Your task to perform on an android device: turn on data saver in the chrome app Image 0: 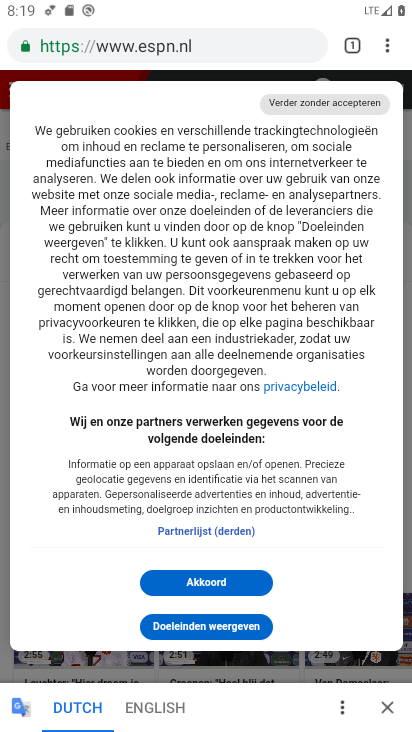
Step 0: press home button
Your task to perform on an android device: turn on data saver in the chrome app Image 1: 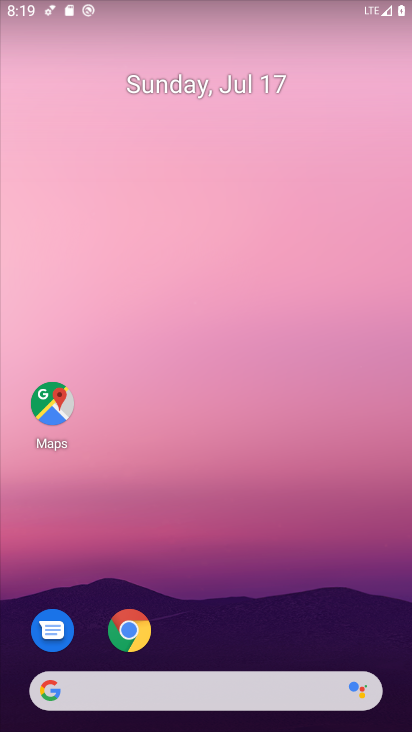
Step 1: drag from (201, 571) to (238, 49)
Your task to perform on an android device: turn on data saver in the chrome app Image 2: 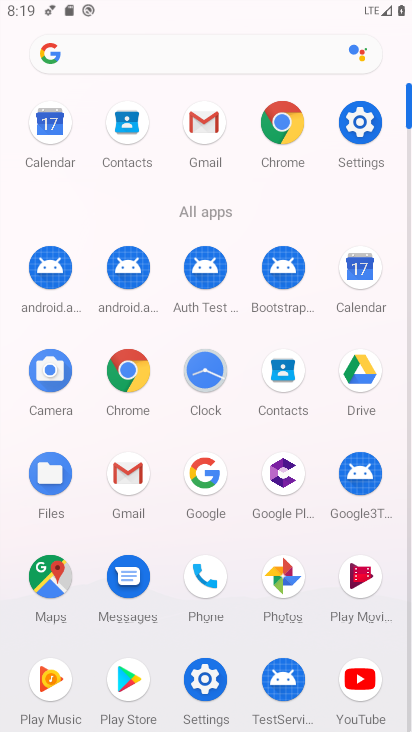
Step 2: click (138, 382)
Your task to perform on an android device: turn on data saver in the chrome app Image 3: 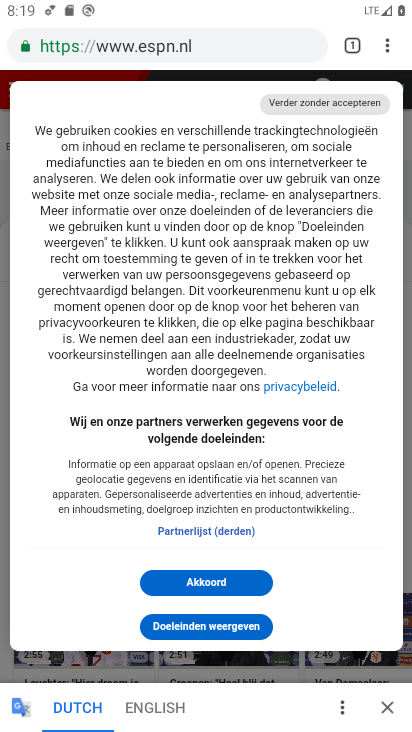
Step 3: click (387, 46)
Your task to perform on an android device: turn on data saver in the chrome app Image 4: 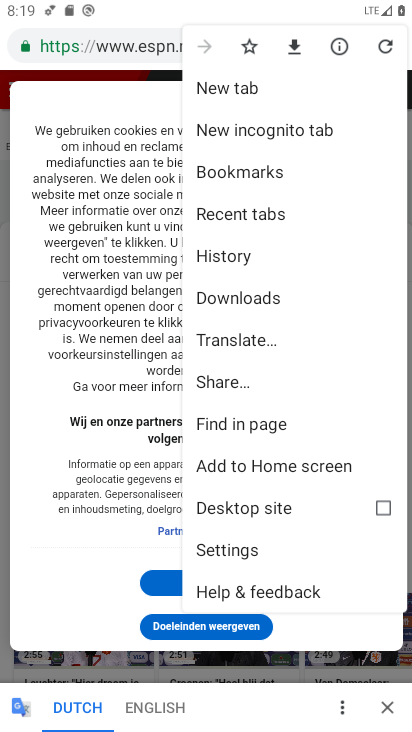
Step 4: click (221, 551)
Your task to perform on an android device: turn on data saver in the chrome app Image 5: 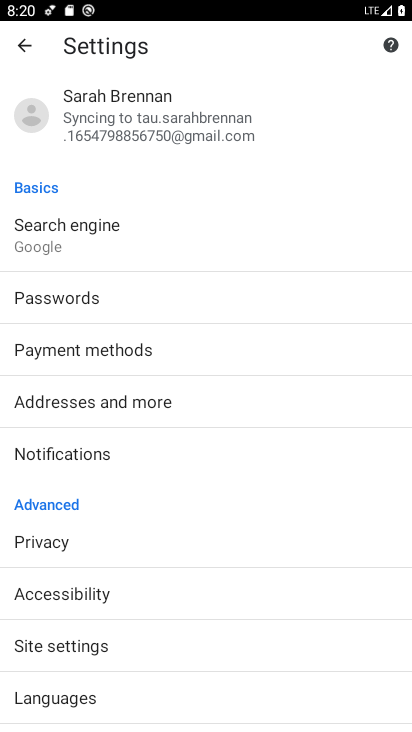
Step 5: drag from (104, 610) to (150, 351)
Your task to perform on an android device: turn on data saver in the chrome app Image 6: 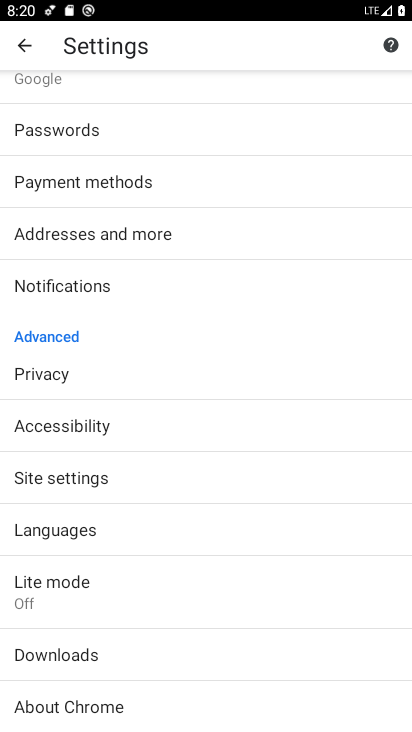
Step 6: drag from (75, 652) to (105, 452)
Your task to perform on an android device: turn on data saver in the chrome app Image 7: 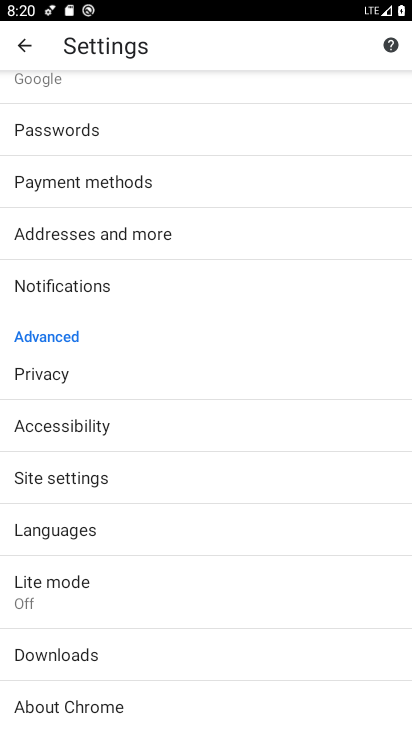
Step 7: click (76, 592)
Your task to perform on an android device: turn on data saver in the chrome app Image 8: 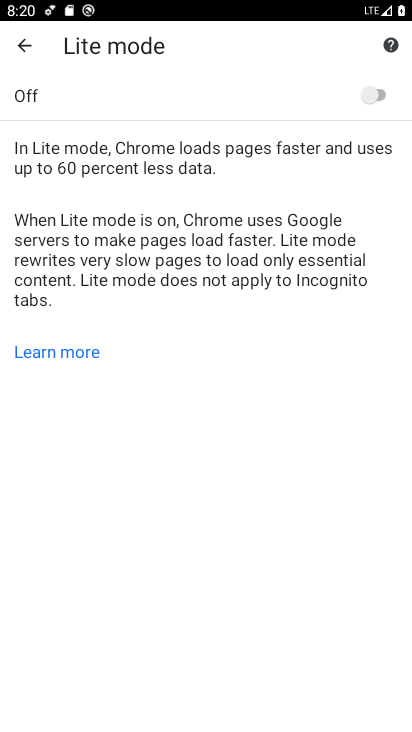
Step 8: click (392, 101)
Your task to perform on an android device: turn on data saver in the chrome app Image 9: 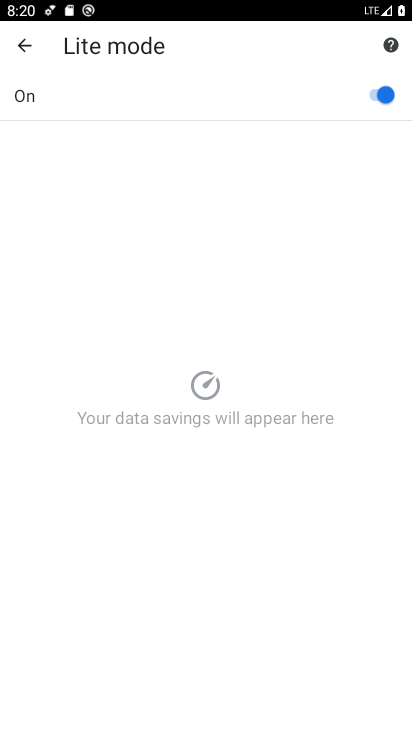
Step 9: task complete